Your task to perform on an android device: Check the weather Image 0: 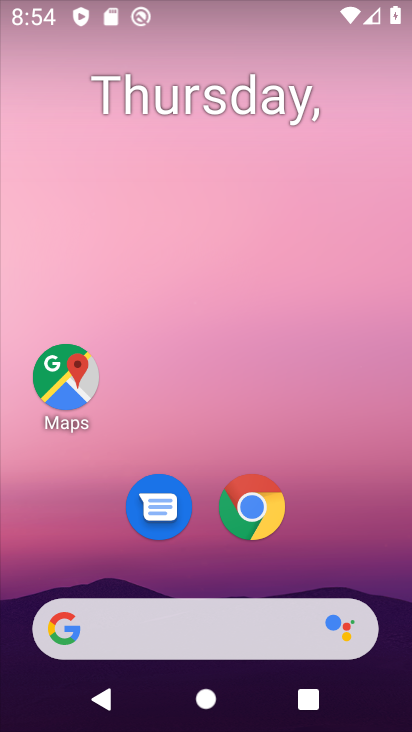
Step 0: click (211, 633)
Your task to perform on an android device: Check the weather Image 1: 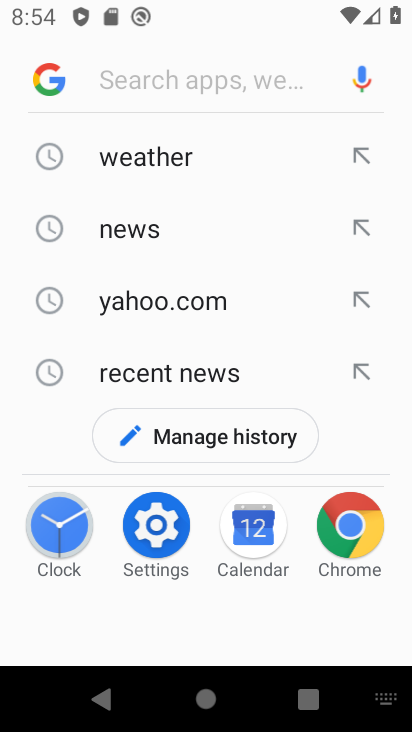
Step 1: click (186, 174)
Your task to perform on an android device: Check the weather Image 2: 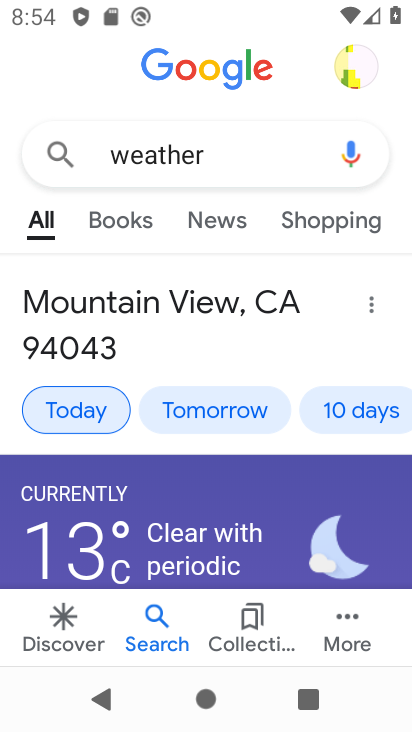
Step 2: task complete